Your task to perform on an android device: set default search engine in the chrome app Image 0: 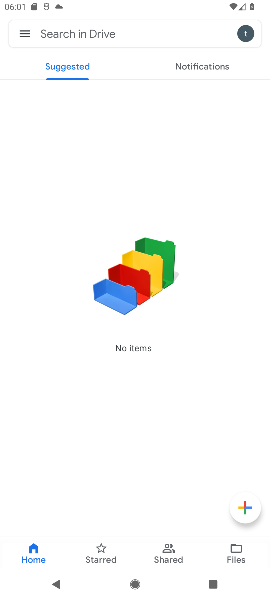
Step 0: press home button
Your task to perform on an android device: set default search engine in the chrome app Image 1: 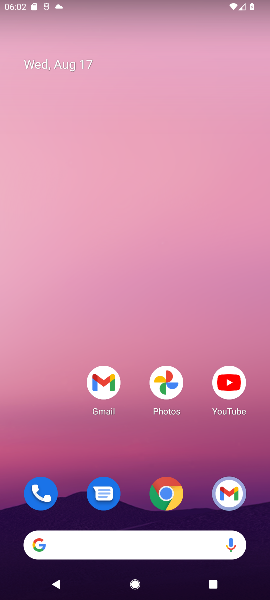
Step 1: click (171, 499)
Your task to perform on an android device: set default search engine in the chrome app Image 2: 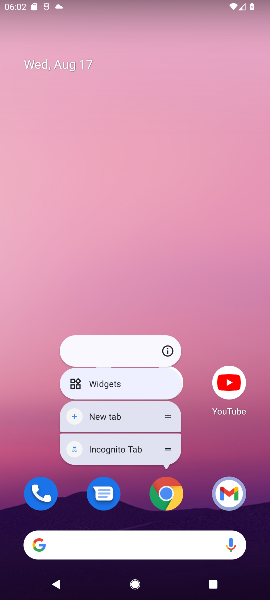
Step 2: click (176, 497)
Your task to perform on an android device: set default search engine in the chrome app Image 3: 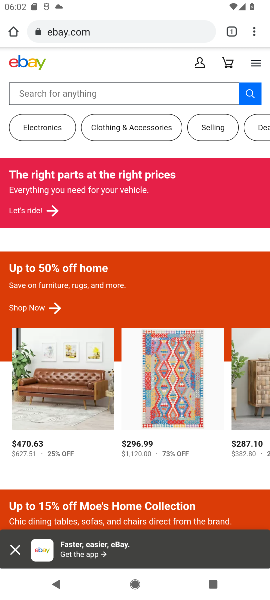
Step 3: drag from (259, 25) to (168, 409)
Your task to perform on an android device: set default search engine in the chrome app Image 4: 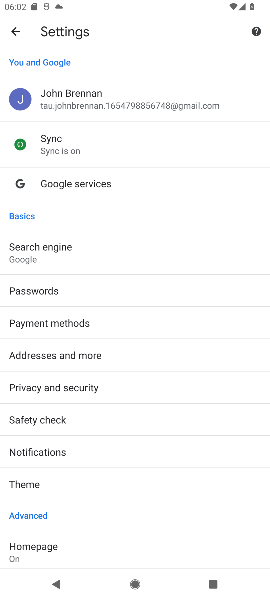
Step 4: click (36, 256)
Your task to perform on an android device: set default search engine in the chrome app Image 5: 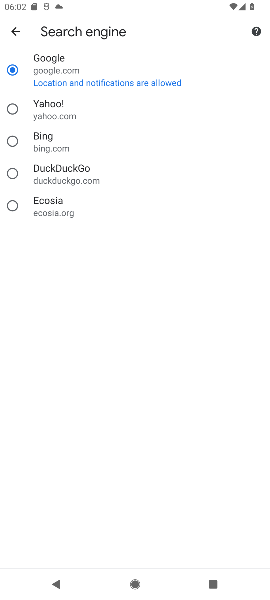
Step 5: click (15, 139)
Your task to perform on an android device: set default search engine in the chrome app Image 6: 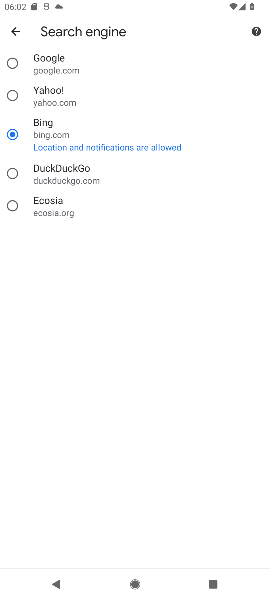
Step 6: task complete